Your task to perform on an android device: Search for "alienware aurora" on ebay.com, select the first entry, add it to the cart, then select checkout. Image 0: 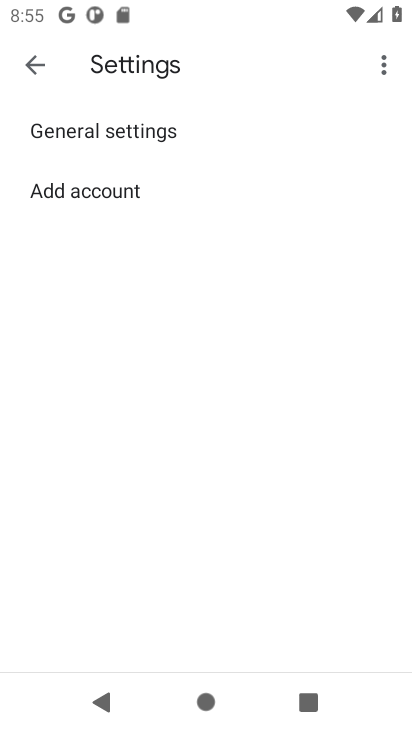
Step 0: press home button
Your task to perform on an android device: Search for "alienware aurora" on ebay.com, select the first entry, add it to the cart, then select checkout. Image 1: 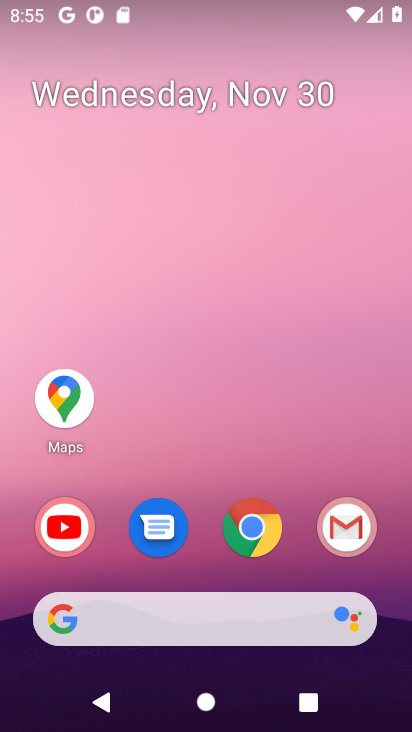
Step 1: click (257, 523)
Your task to perform on an android device: Search for "alienware aurora" on ebay.com, select the first entry, add it to the cart, then select checkout. Image 2: 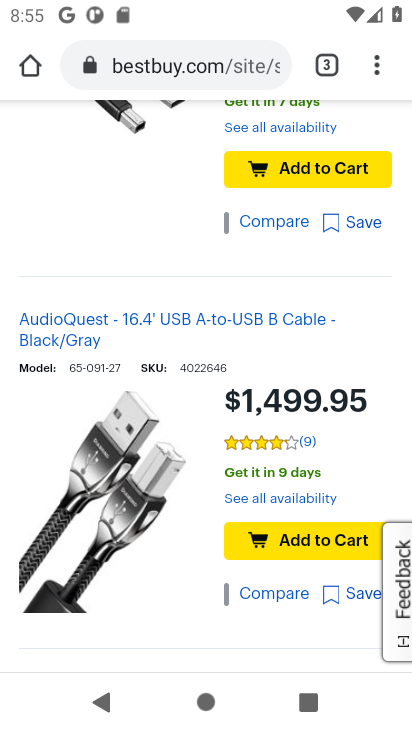
Step 2: click (225, 64)
Your task to perform on an android device: Search for "alienware aurora" on ebay.com, select the first entry, add it to the cart, then select checkout. Image 3: 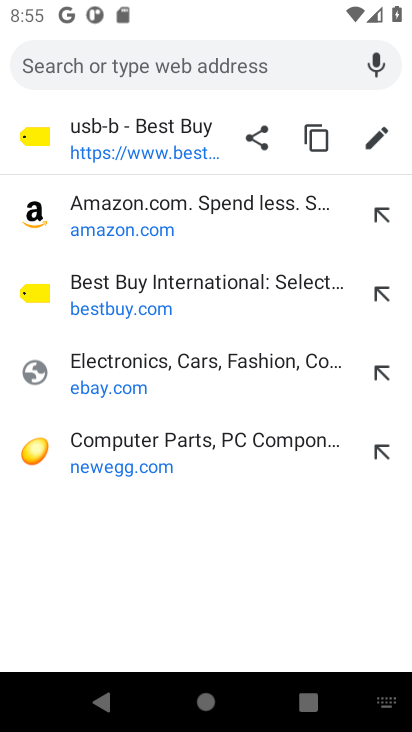
Step 3: click (113, 382)
Your task to perform on an android device: Search for "alienware aurora" on ebay.com, select the first entry, add it to the cart, then select checkout. Image 4: 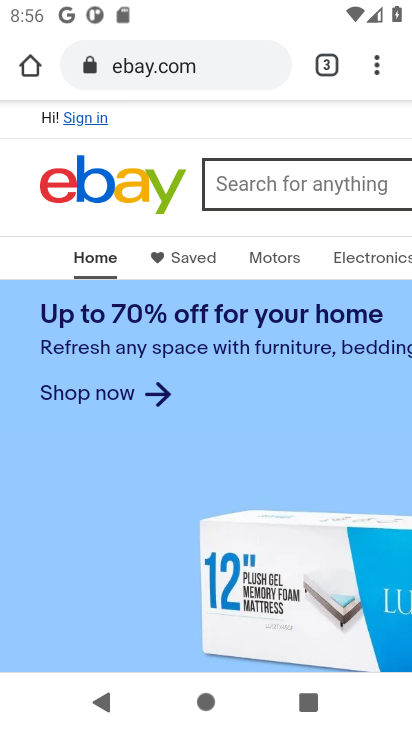
Step 4: click (282, 176)
Your task to perform on an android device: Search for "alienware aurora" on ebay.com, select the first entry, add it to the cart, then select checkout. Image 5: 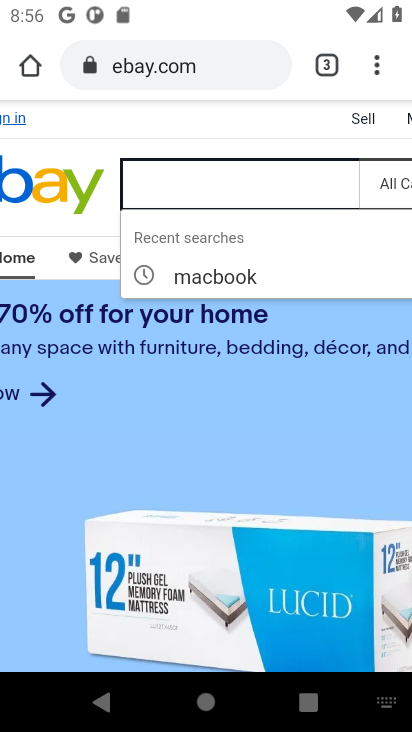
Step 5: type "alienware aurora"
Your task to perform on an android device: Search for "alienware aurora" on ebay.com, select the first entry, add it to the cart, then select checkout. Image 6: 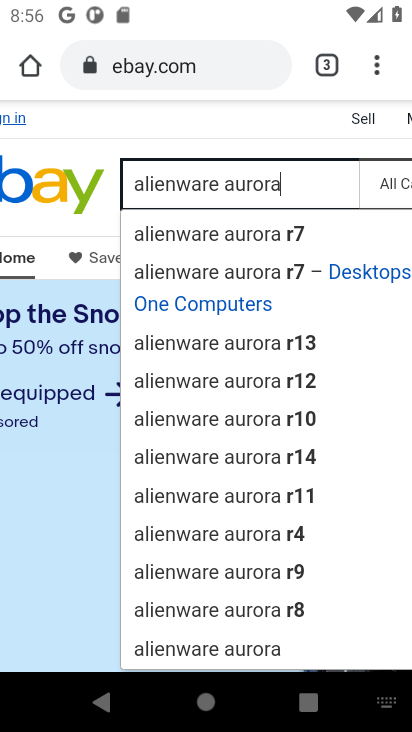
Step 6: press enter
Your task to perform on an android device: Search for "alienware aurora" on ebay.com, select the first entry, add it to the cart, then select checkout. Image 7: 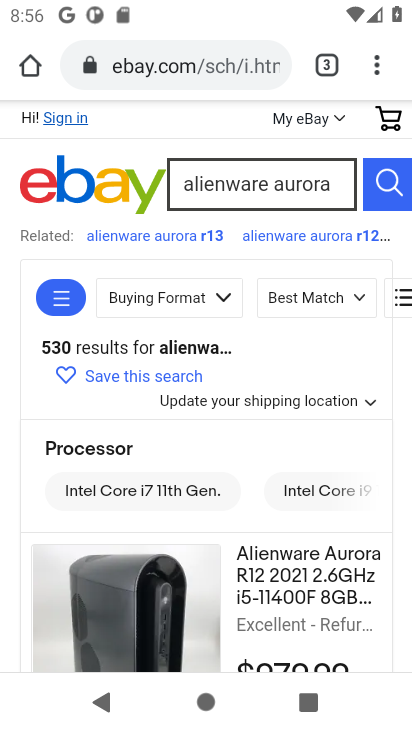
Step 7: drag from (335, 576) to (334, 313)
Your task to perform on an android device: Search for "alienware aurora" on ebay.com, select the first entry, add it to the cart, then select checkout. Image 8: 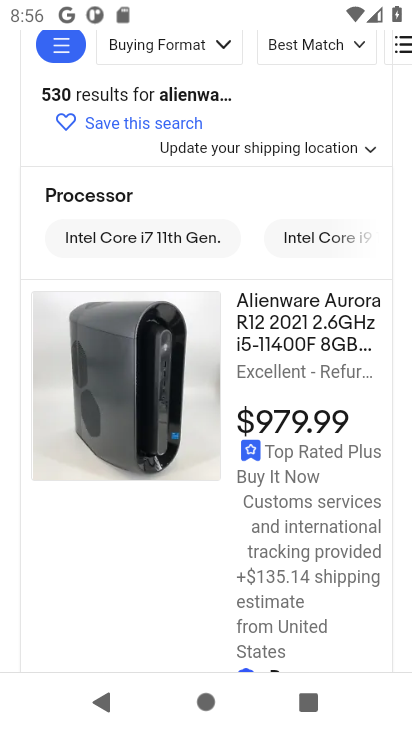
Step 8: click (147, 387)
Your task to perform on an android device: Search for "alienware aurora" on ebay.com, select the first entry, add it to the cart, then select checkout. Image 9: 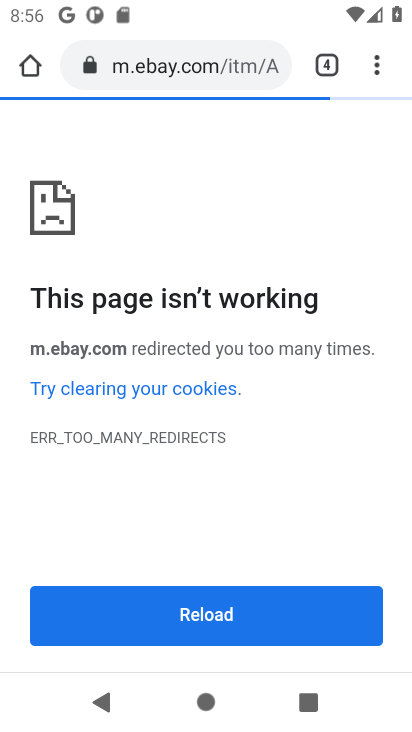
Step 9: press back button
Your task to perform on an android device: Search for "alienware aurora" on ebay.com, select the first entry, add it to the cart, then select checkout. Image 10: 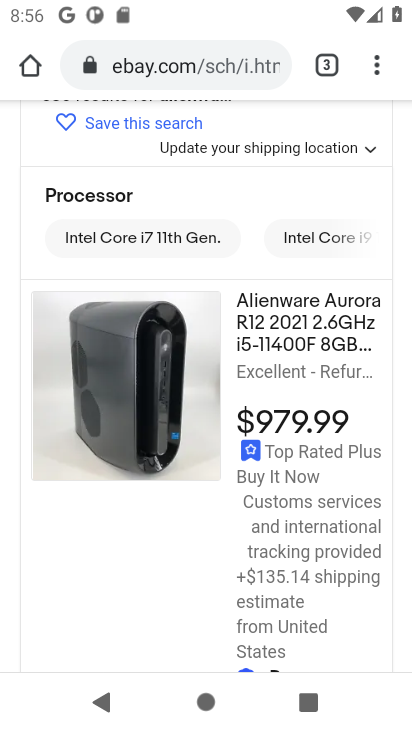
Step 10: drag from (260, 594) to (292, 89)
Your task to perform on an android device: Search for "alienware aurora" on ebay.com, select the first entry, add it to the cart, then select checkout. Image 11: 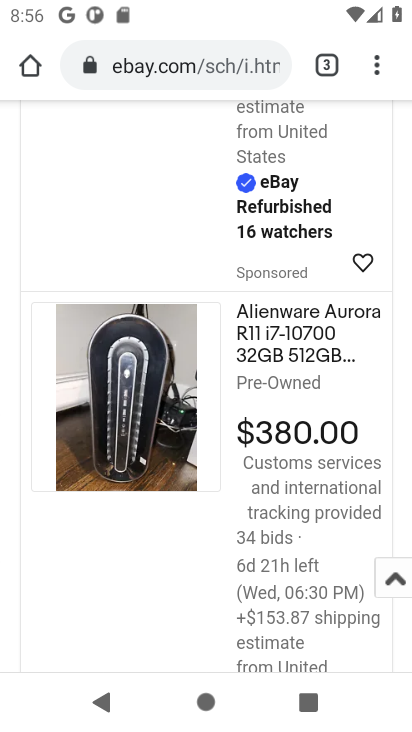
Step 11: click (160, 353)
Your task to perform on an android device: Search for "alienware aurora" on ebay.com, select the first entry, add it to the cart, then select checkout. Image 12: 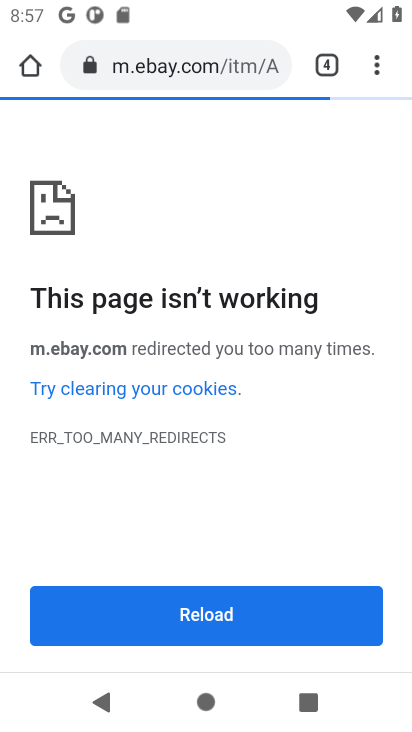
Step 12: press back button
Your task to perform on an android device: Search for "alienware aurora" on ebay.com, select the first entry, add it to the cart, then select checkout. Image 13: 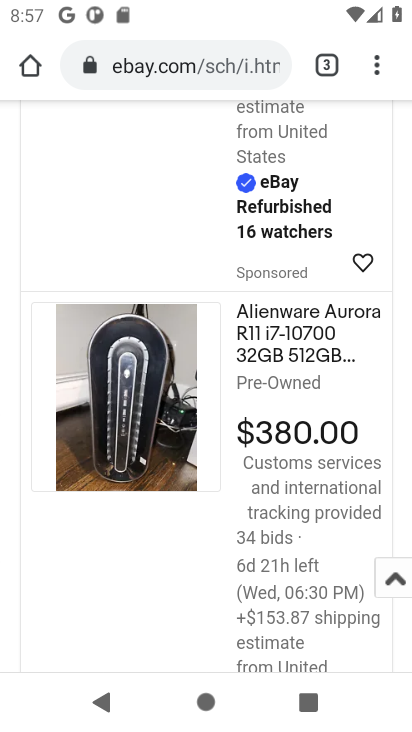
Step 13: drag from (322, 544) to (379, 87)
Your task to perform on an android device: Search for "alienware aurora" on ebay.com, select the first entry, add it to the cart, then select checkout. Image 14: 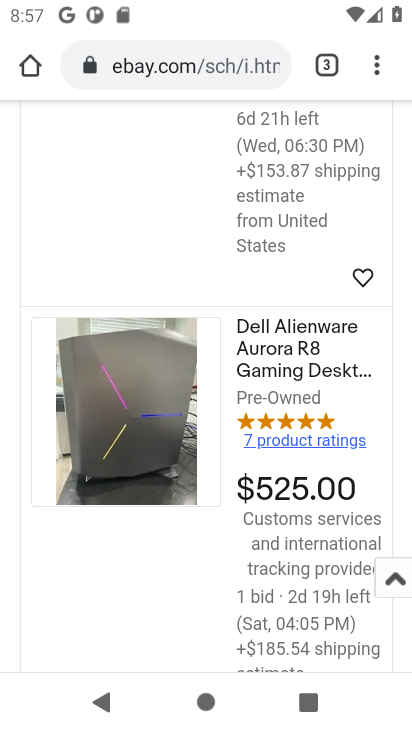
Step 14: click (153, 415)
Your task to perform on an android device: Search for "alienware aurora" on ebay.com, select the first entry, add it to the cart, then select checkout. Image 15: 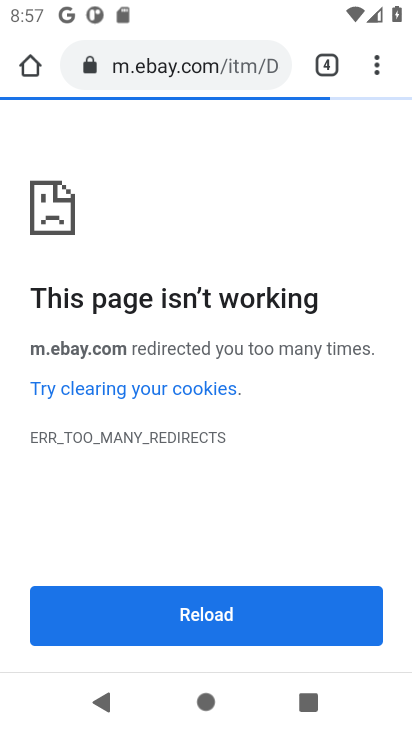
Step 15: task complete